Your task to perform on an android device: Go to settings Image 0: 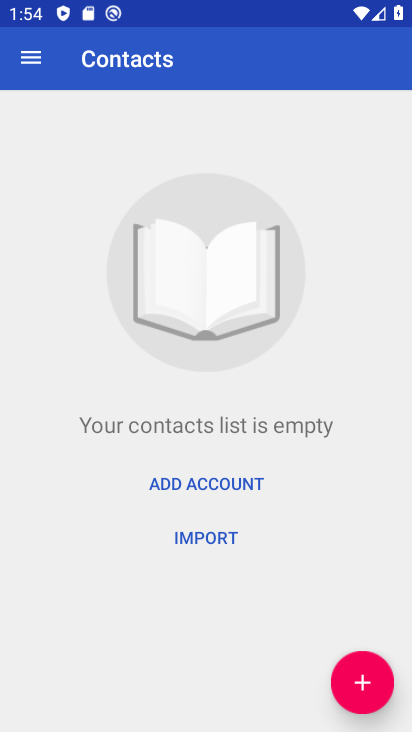
Step 0: press home button
Your task to perform on an android device: Go to settings Image 1: 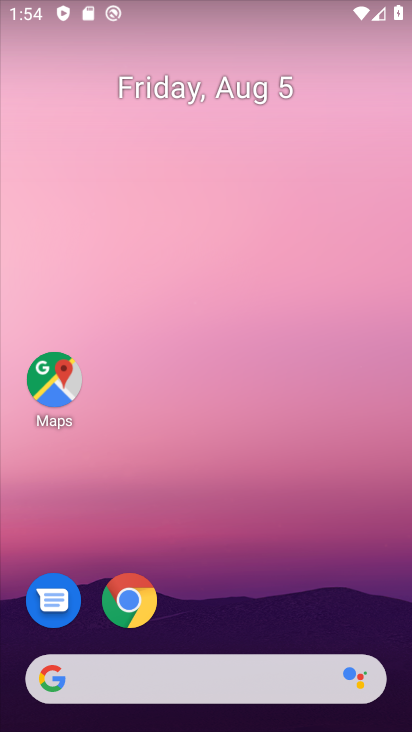
Step 1: drag from (253, 570) to (173, 217)
Your task to perform on an android device: Go to settings Image 2: 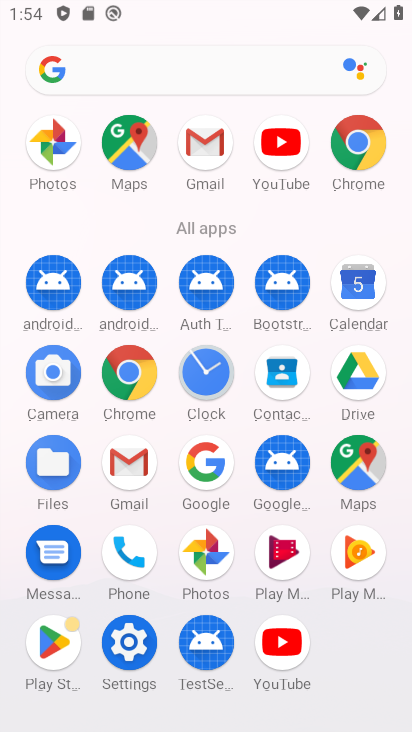
Step 2: click (130, 667)
Your task to perform on an android device: Go to settings Image 3: 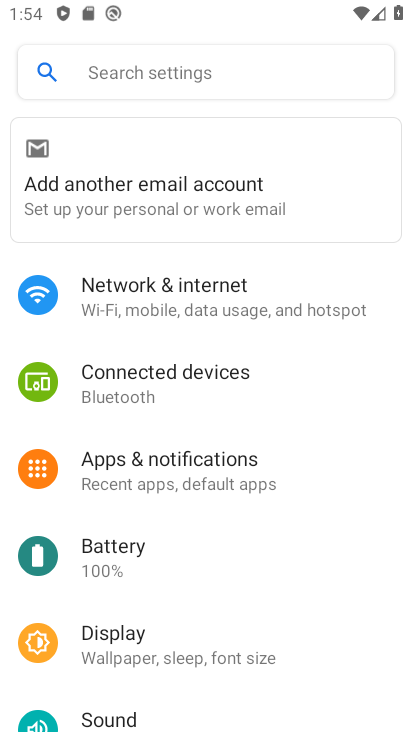
Step 3: task complete